Your task to perform on an android device: Open Yahoo.com Image 0: 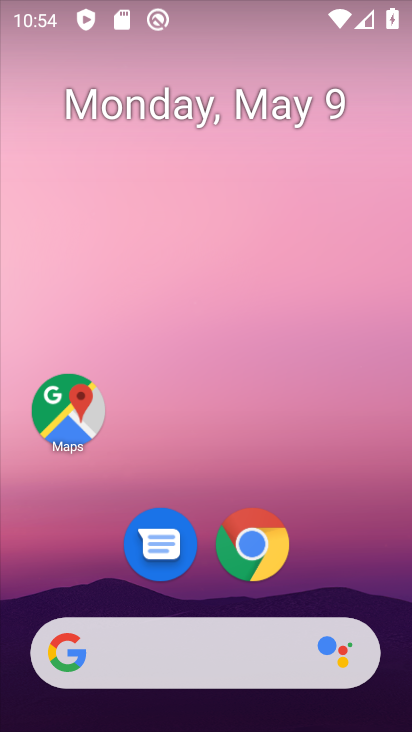
Step 0: click (247, 535)
Your task to perform on an android device: Open Yahoo.com Image 1: 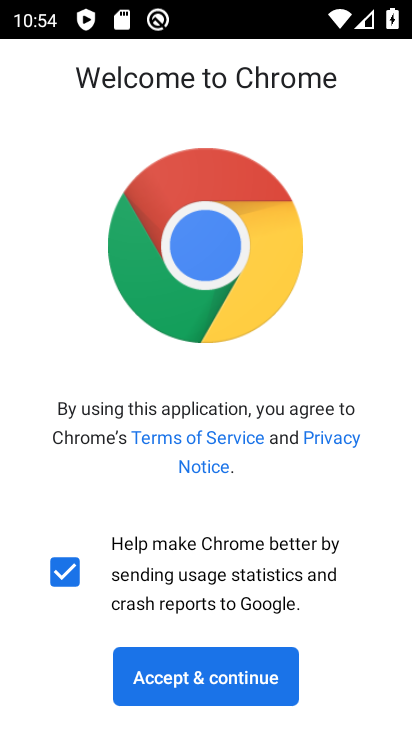
Step 1: click (240, 710)
Your task to perform on an android device: Open Yahoo.com Image 2: 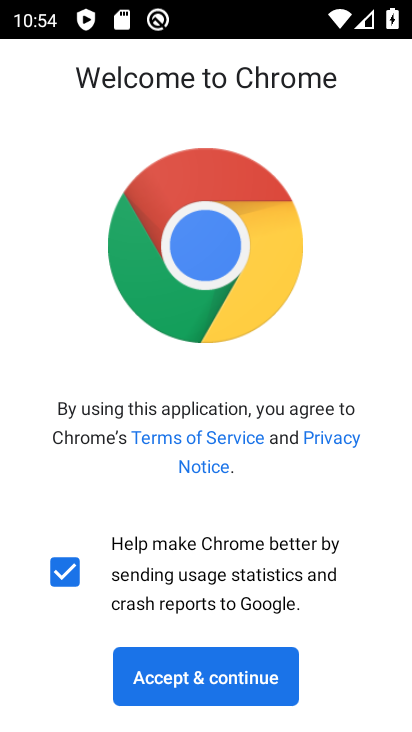
Step 2: click (203, 684)
Your task to perform on an android device: Open Yahoo.com Image 3: 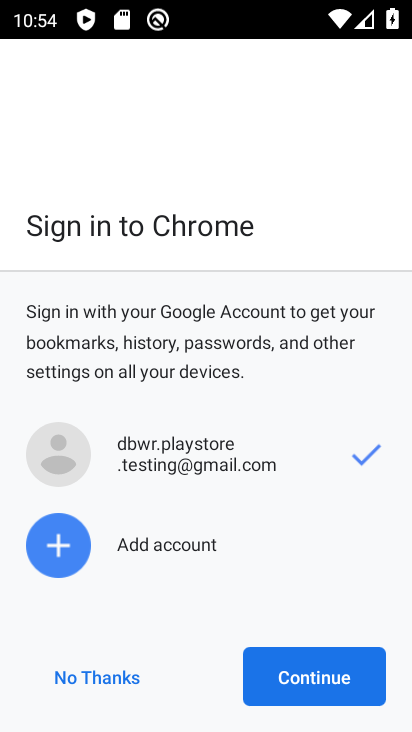
Step 3: click (85, 689)
Your task to perform on an android device: Open Yahoo.com Image 4: 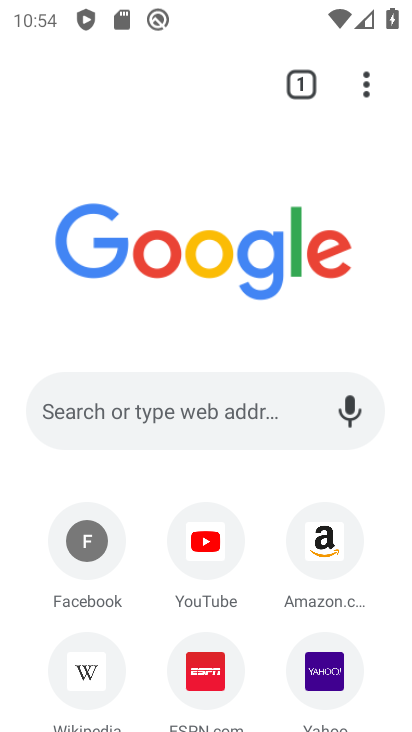
Step 4: click (322, 674)
Your task to perform on an android device: Open Yahoo.com Image 5: 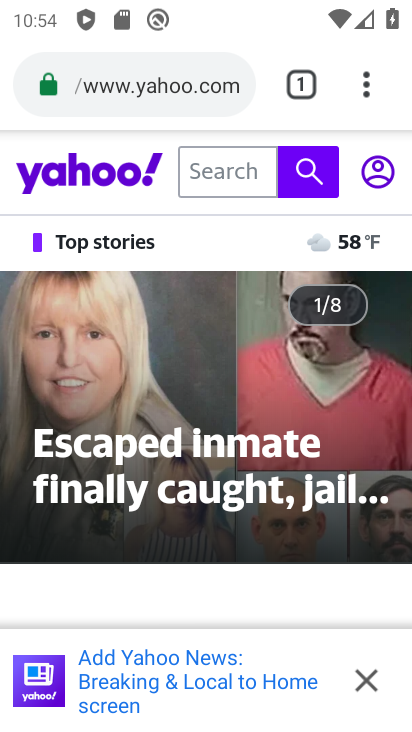
Step 5: task complete